Your task to perform on an android device: turn on sleep mode Image 0: 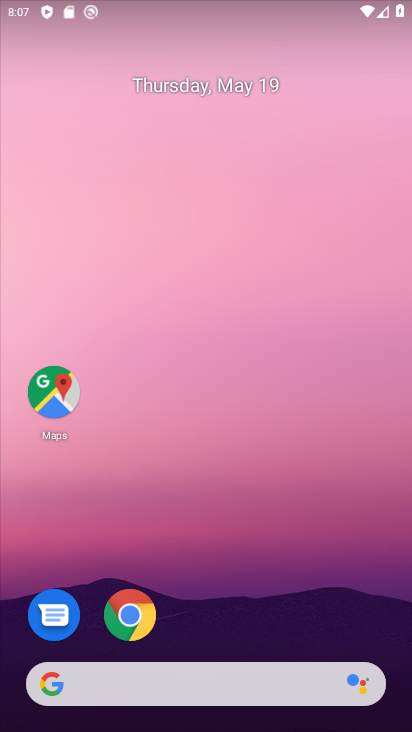
Step 0: drag from (227, 622) to (157, 155)
Your task to perform on an android device: turn on sleep mode Image 1: 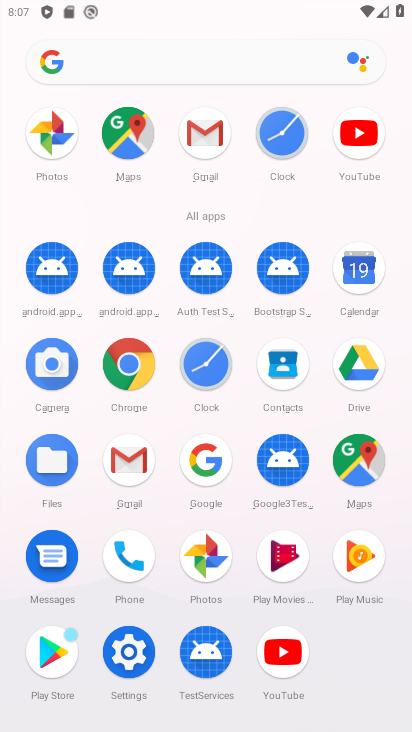
Step 1: click (125, 651)
Your task to perform on an android device: turn on sleep mode Image 2: 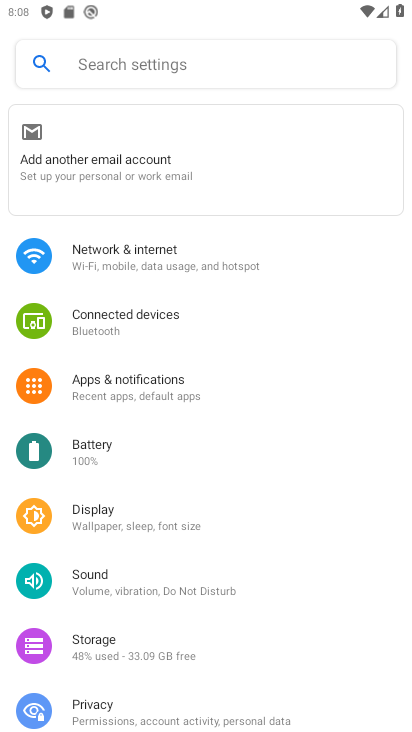
Step 2: drag from (148, 470) to (177, 410)
Your task to perform on an android device: turn on sleep mode Image 3: 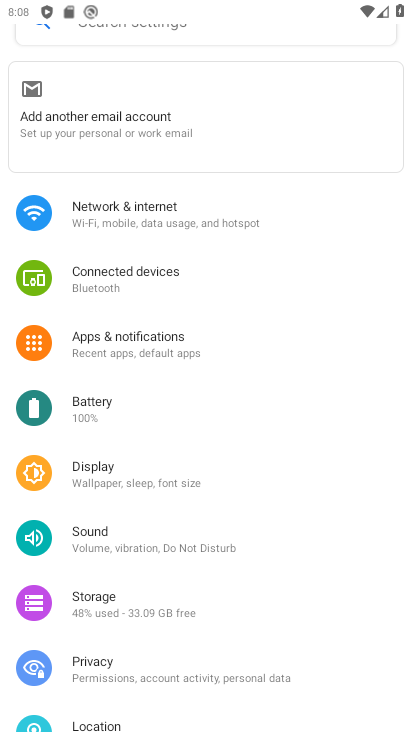
Step 3: drag from (145, 458) to (177, 379)
Your task to perform on an android device: turn on sleep mode Image 4: 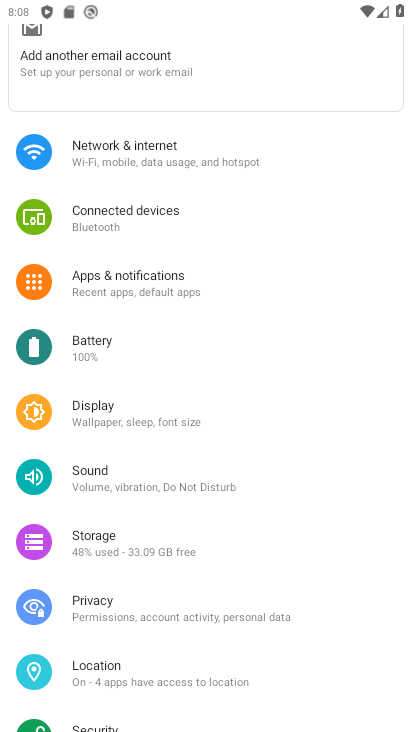
Step 4: drag from (143, 389) to (227, 287)
Your task to perform on an android device: turn on sleep mode Image 5: 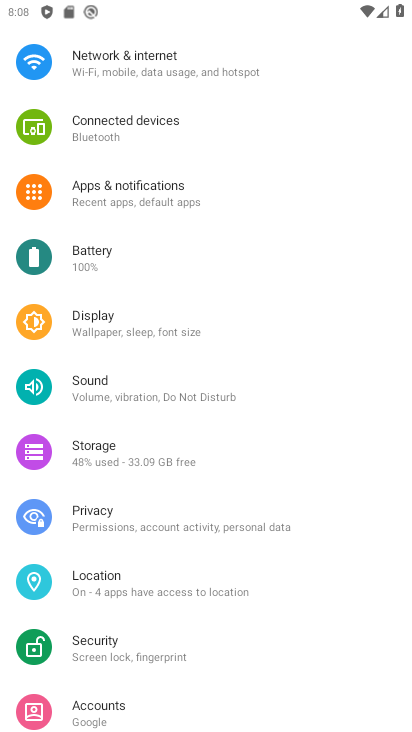
Step 5: click (178, 328)
Your task to perform on an android device: turn on sleep mode Image 6: 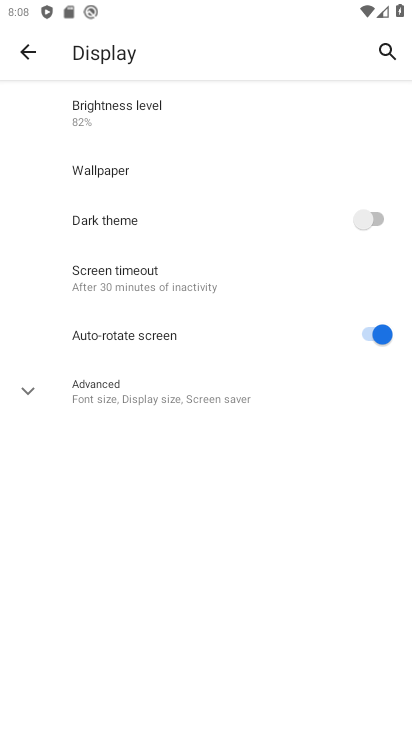
Step 6: click (146, 284)
Your task to perform on an android device: turn on sleep mode Image 7: 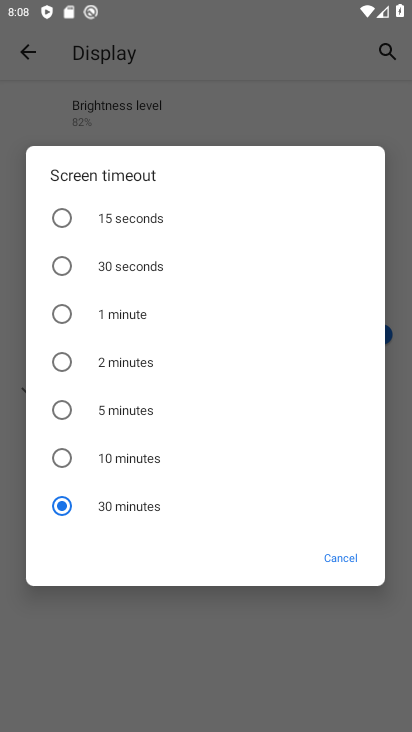
Step 7: click (342, 557)
Your task to perform on an android device: turn on sleep mode Image 8: 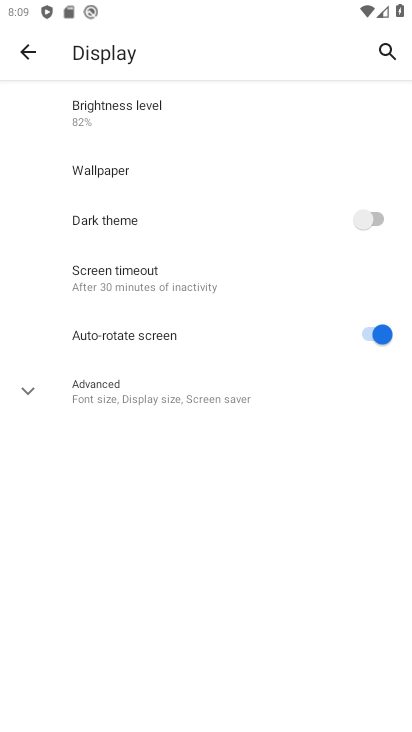
Step 8: press back button
Your task to perform on an android device: turn on sleep mode Image 9: 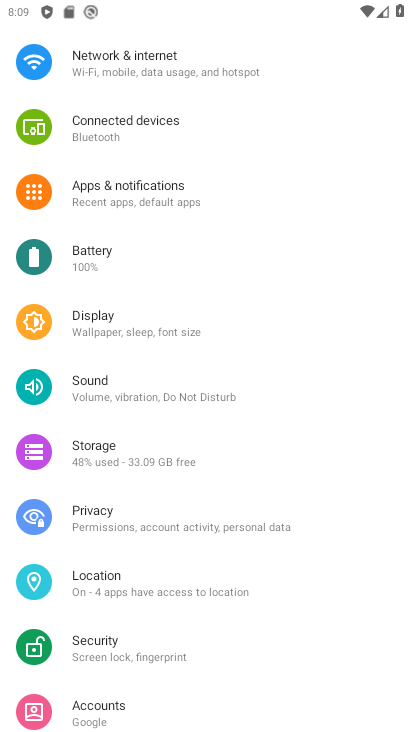
Step 9: drag from (181, 551) to (199, 477)
Your task to perform on an android device: turn on sleep mode Image 10: 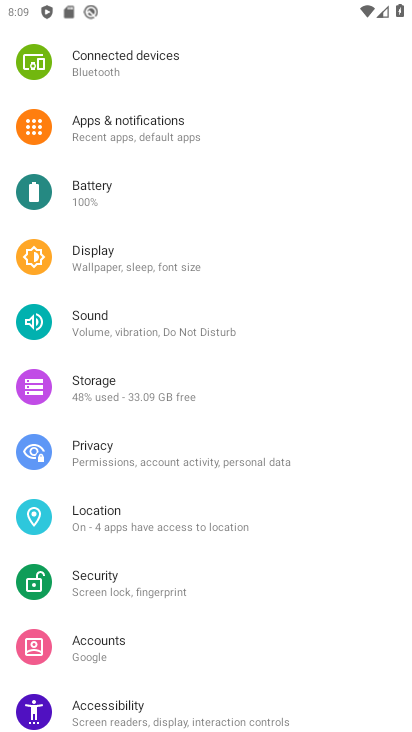
Step 10: drag from (145, 545) to (175, 479)
Your task to perform on an android device: turn on sleep mode Image 11: 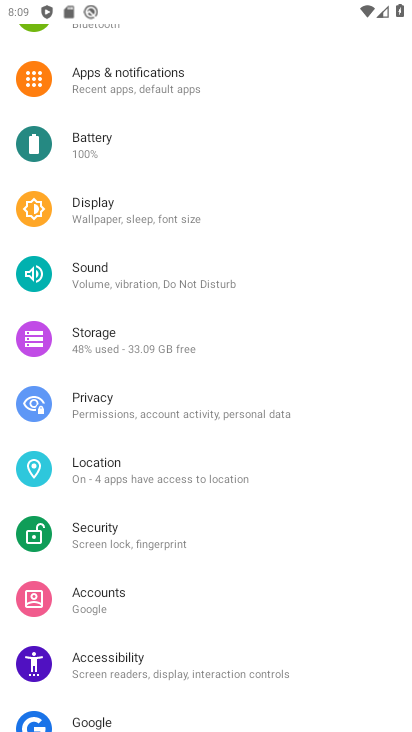
Step 11: drag from (169, 545) to (200, 458)
Your task to perform on an android device: turn on sleep mode Image 12: 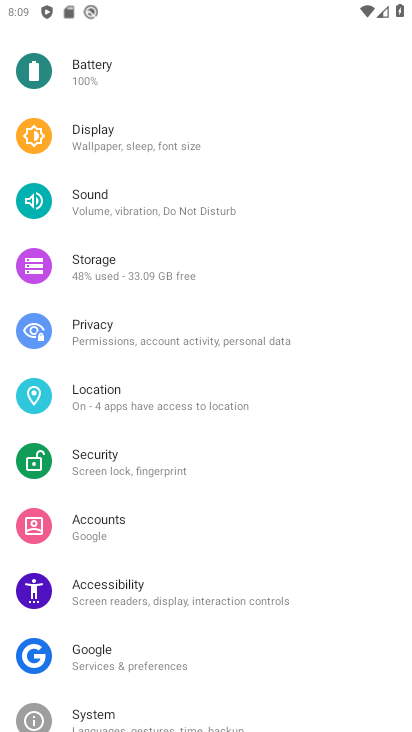
Step 12: drag from (192, 490) to (245, 386)
Your task to perform on an android device: turn on sleep mode Image 13: 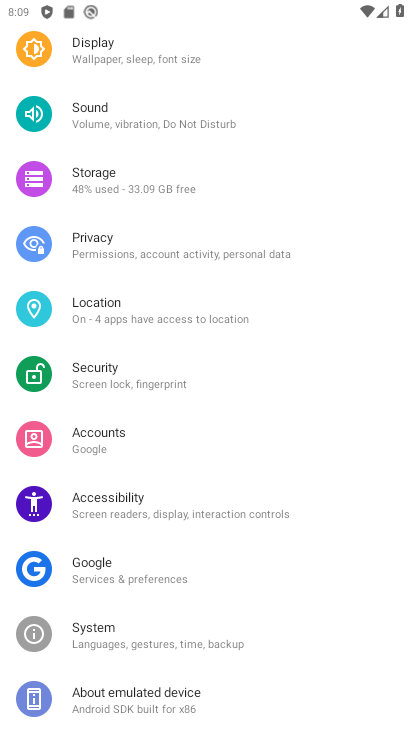
Step 13: click (154, 53)
Your task to perform on an android device: turn on sleep mode Image 14: 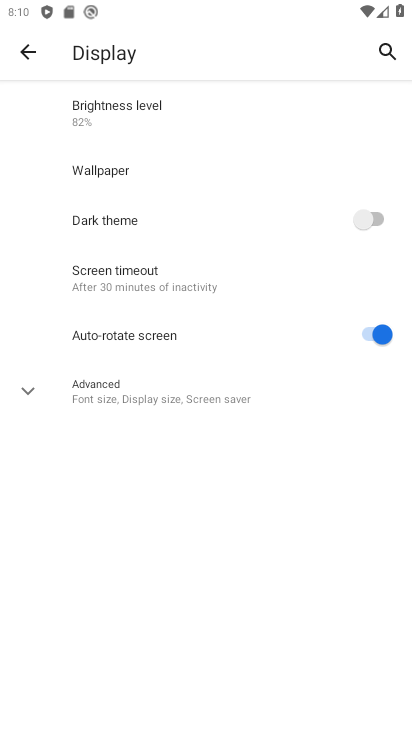
Step 14: click (96, 395)
Your task to perform on an android device: turn on sleep mode Image 15: 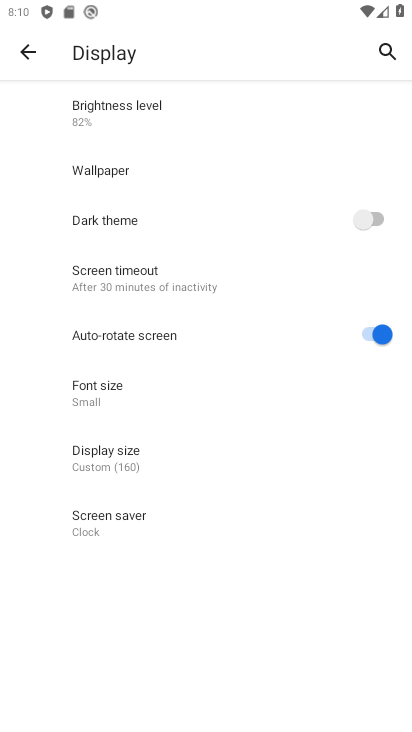
Step 15: task complete